Your task to perform on an android device: empty trash in google photos Image 0: 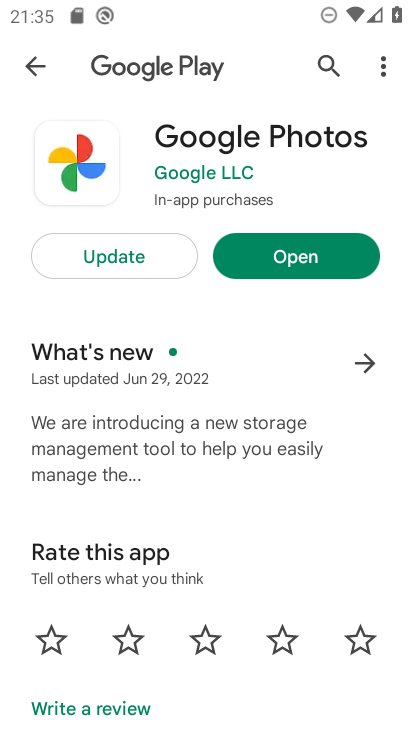
Step 0: press home button
Your task to perform on an android device: empty trash in google photos Image 1: 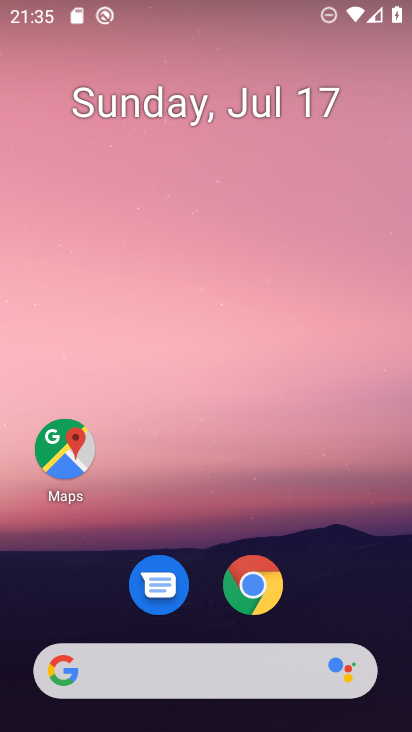
Step 1: drag from (190, 678) to (286, 37)
Your task to perform on an android device: empty trash in google photos Image 2: 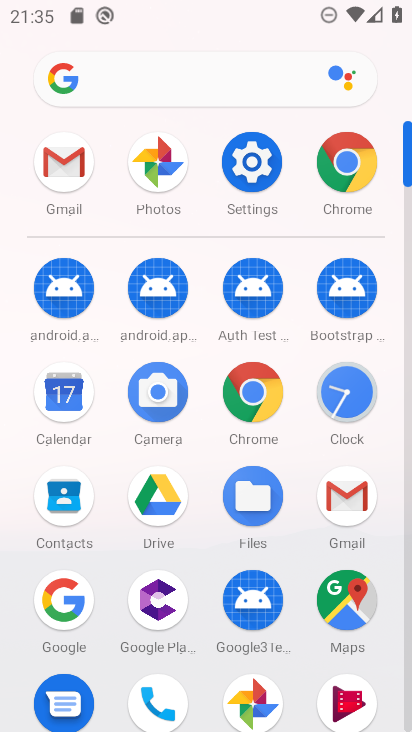
Step 2: click (162, 179)
Your task to perform on an android device: empty trash in google photos Image 3: 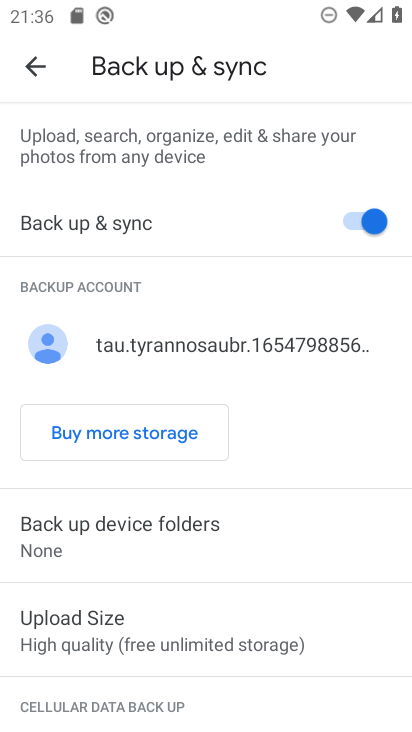
Step 3: click (31, 62)
Your task to perform on an android device: empty trash in google photos Image 4: 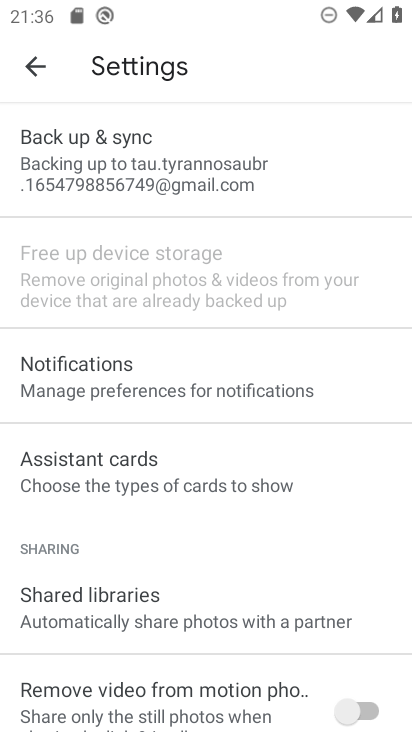
Step 4: click (34, 67)
Your task to perform on an android device: empty trash in google photos Image 5: 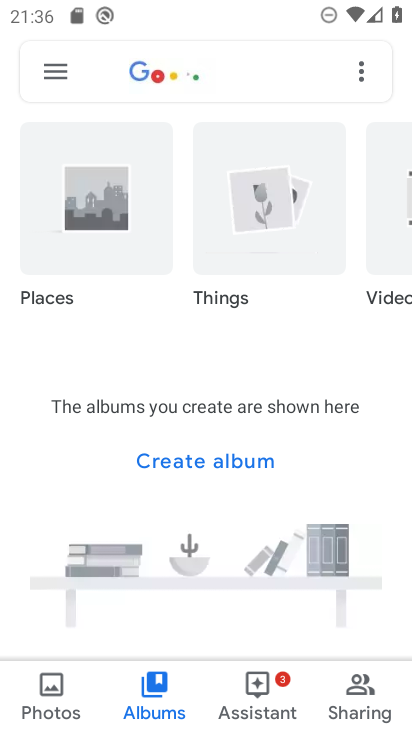
Step 5: click (46, 64)
Your task to perform on an android device: empty trash in google photos Image 6: 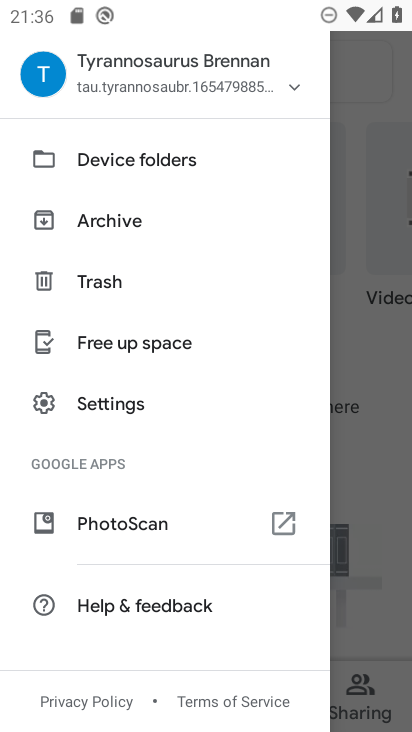
Step 6: click (117, 286)
Your task to perform on an android device: empty trash in google photos Image 7: 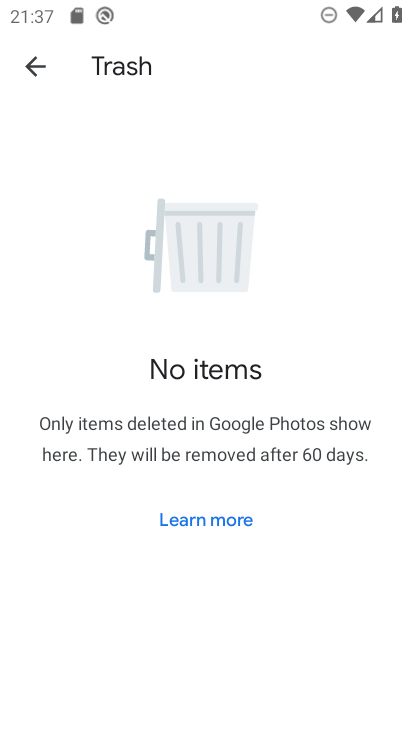
Step 7: task complete